Your task to perform on an android device: change the clock display to analog Image 0: 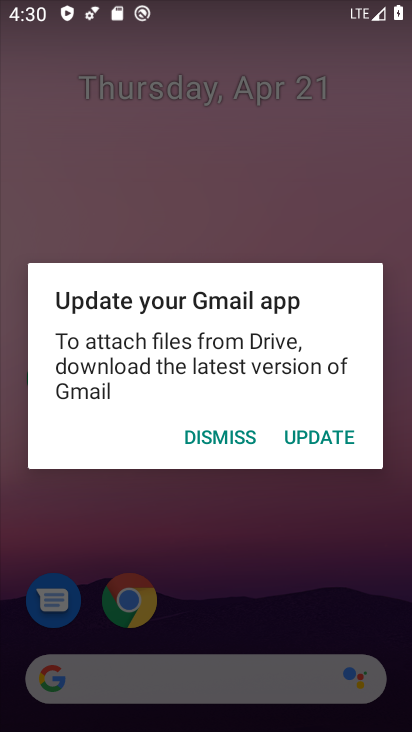
Step 0: press home button
Your task to perform on an android device: change the clock display to analog Image 1: 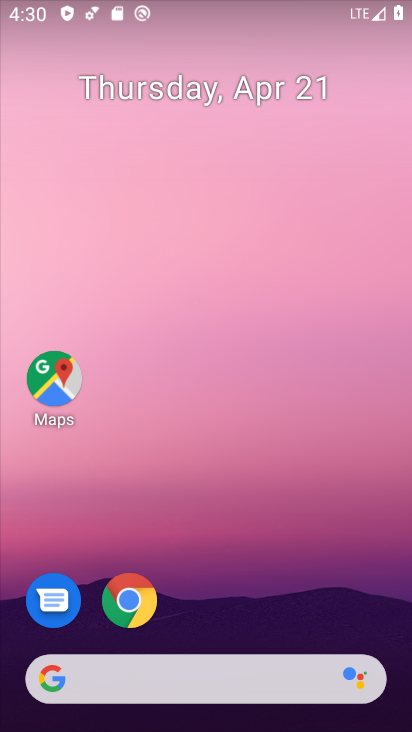
Step 1: drag from (317, 511) to (305, 142)
Your task to perform on an android device: change the clock display to analog Image 2: 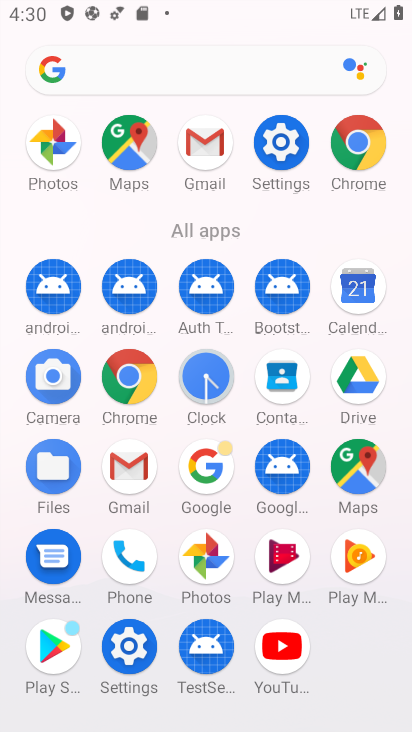
Step 2: click (211, 368)
Your task to perform on an android device: change the clock display to analog Image 3: 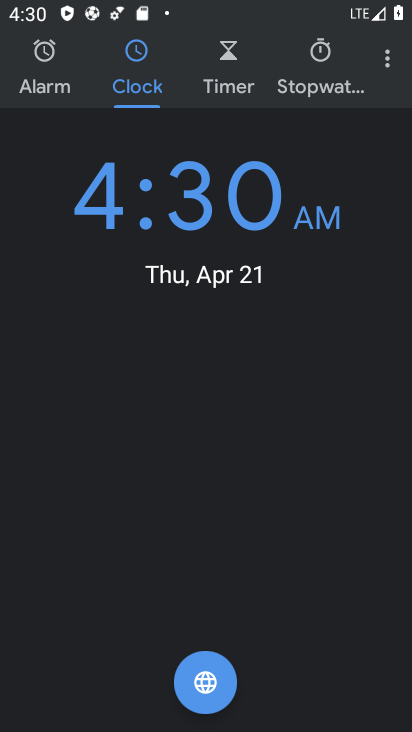
Step 3: click (377, 45)
Your task to perform on an android device: change the clock display to analog Image 4: 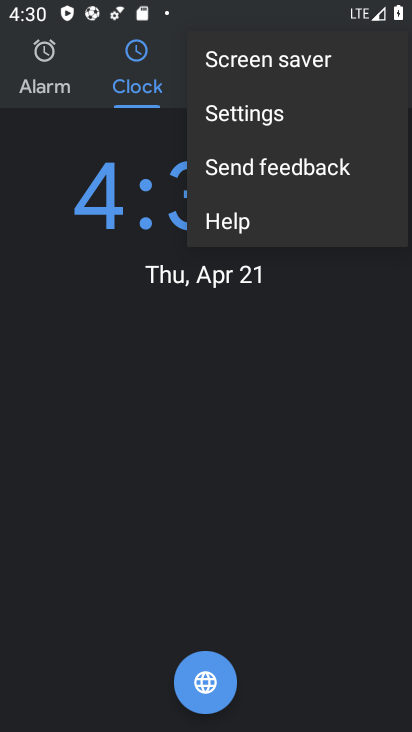
Step 4: click (306, 113)
Your task to perform on an android device: change the clock display to analog Image 5: 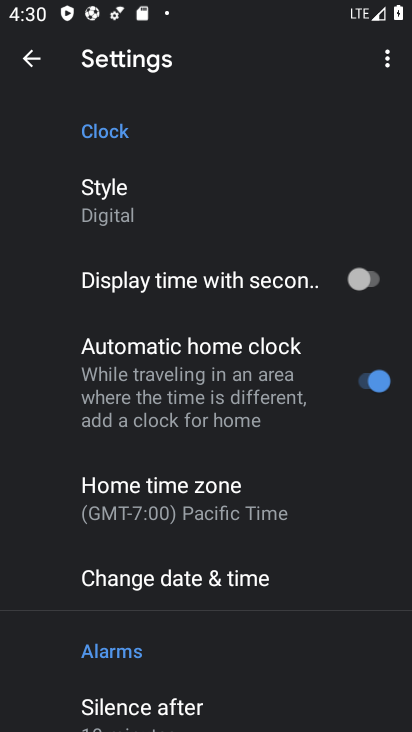
Step 5: click (189, 191)
Your task to perform on an android device: change the clock display to analog Image 6: 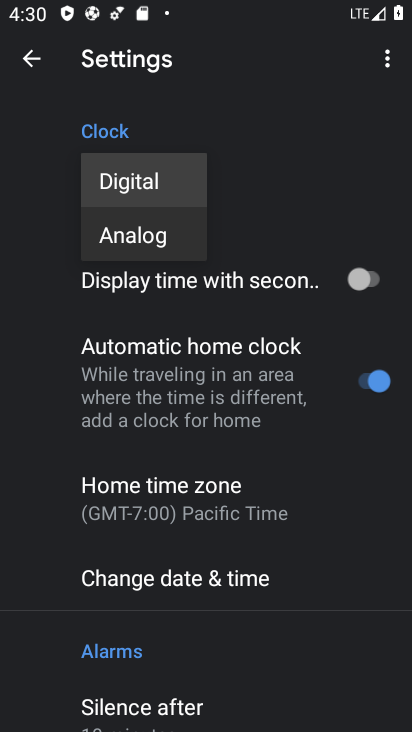
Step 6: click (164, 232)
Your task to perform on an android device: change the clock display to analog Image 7: 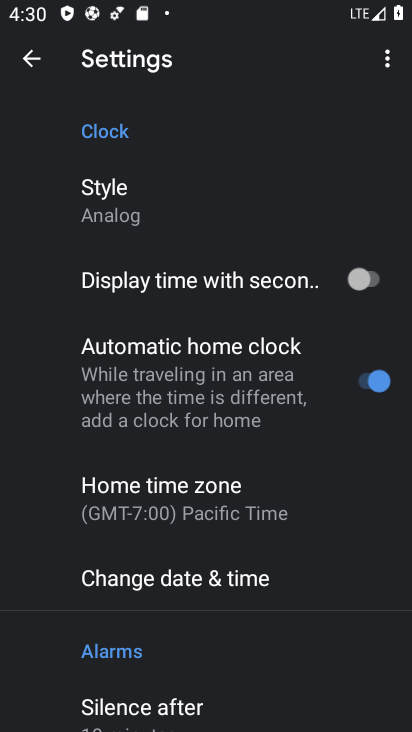
Step 7: task complete